Your task to perform on an android device: What's the weather going to be this weekend? Image 0: 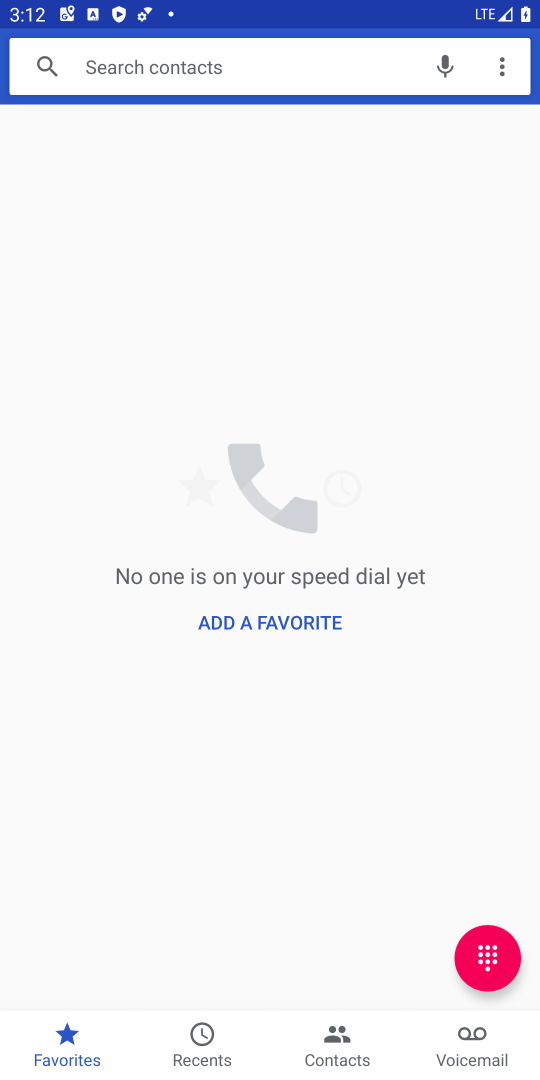
Step 0: press home button
Your task to perform on an android device: What's the weather going to be this weekend? Image 1: 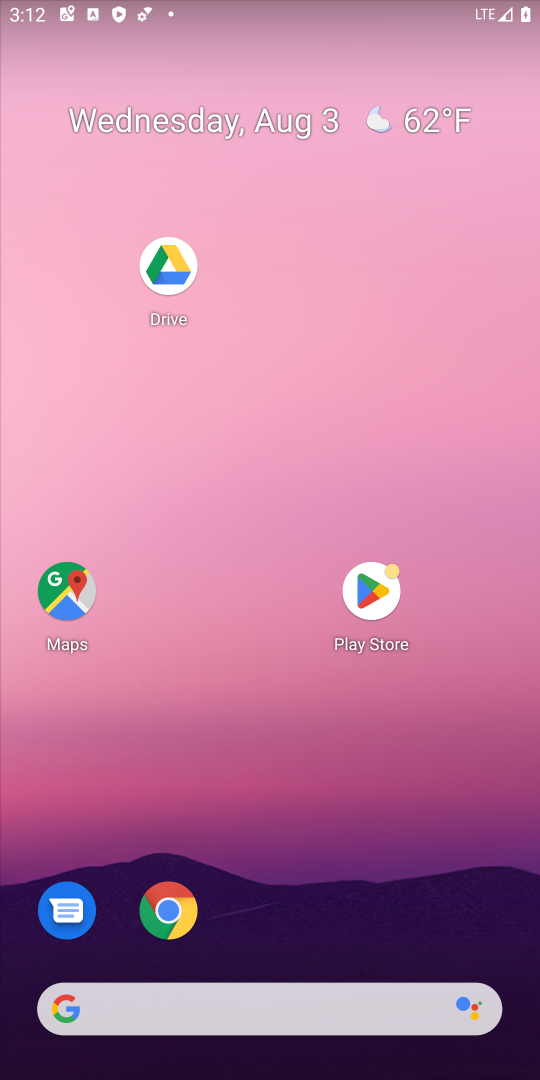
Step 1: drag from (426, 758) to (460, 11)
Your task to perform on an android device: What's the weather going to be this weekend? Image 2: 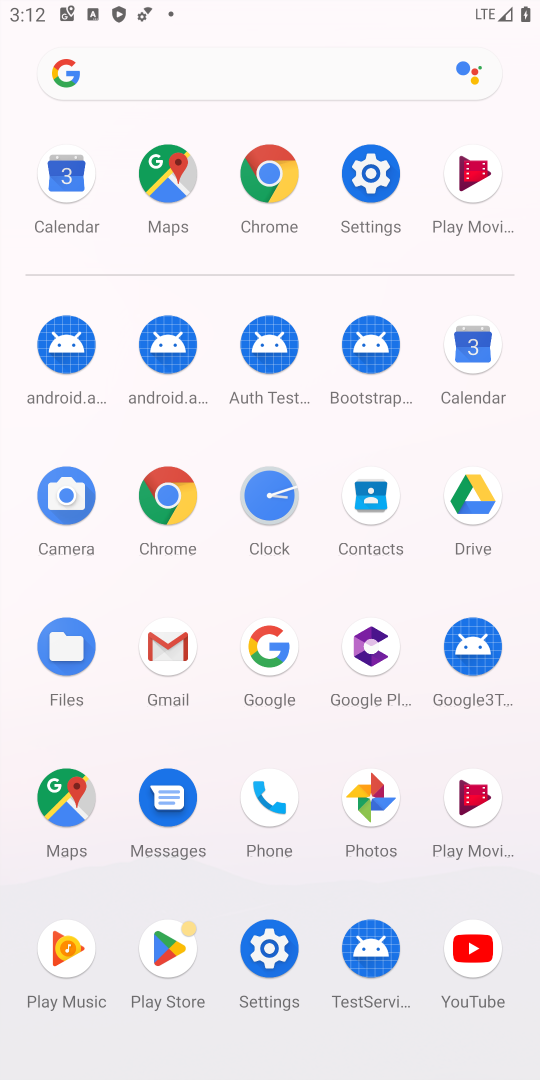
Step 2: click (169, 503)
Your task to perform on an android device: What's the weather going to be this weekend? Image 3: 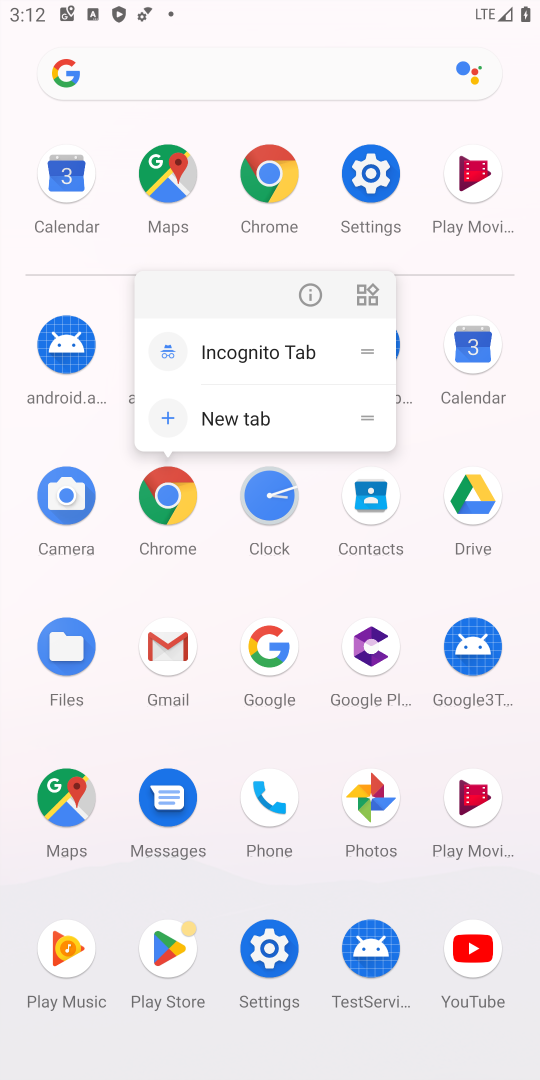
Step 3: click (280, 193)
Your task to perform on an android device: What's the weather going to be this weekend? Image 4: 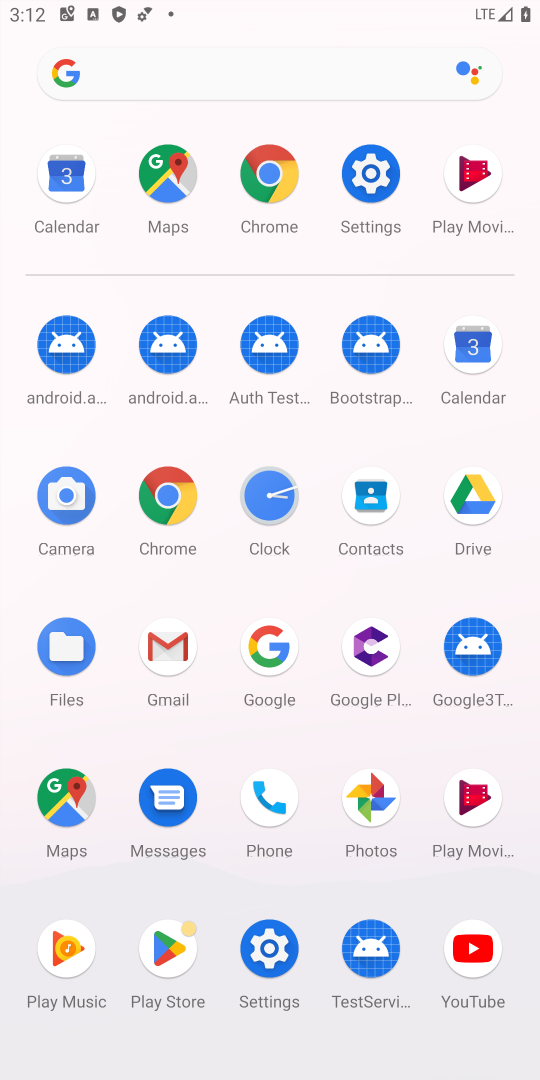
Step 4: click (280, 193)
Your task to perform on an android device: What's the weather going to be this weekend? Image 5: 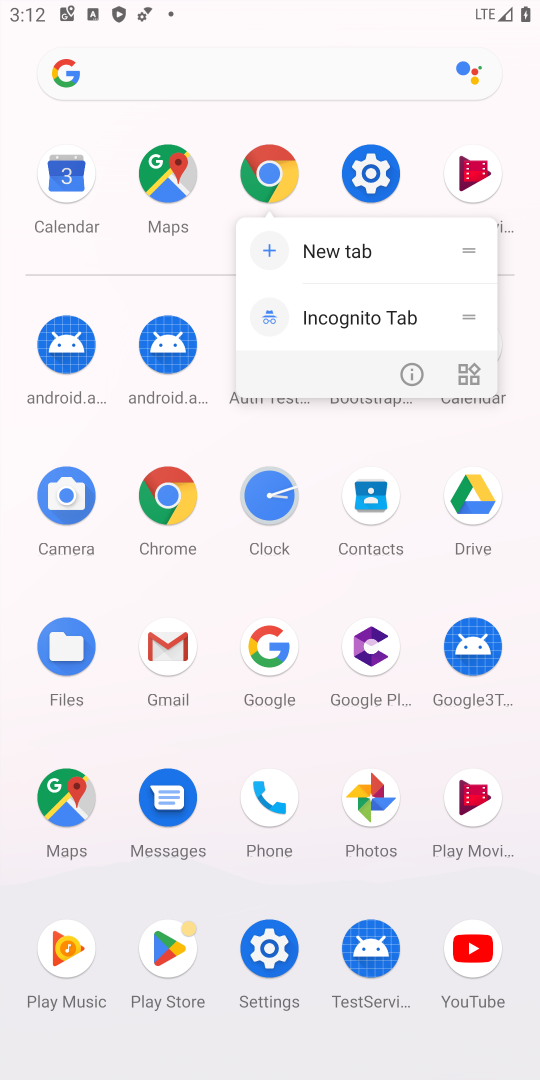
Step 5: click (278, 174)
Your task to perform on an android device: What's the weather going to be this weekend? Image 6: 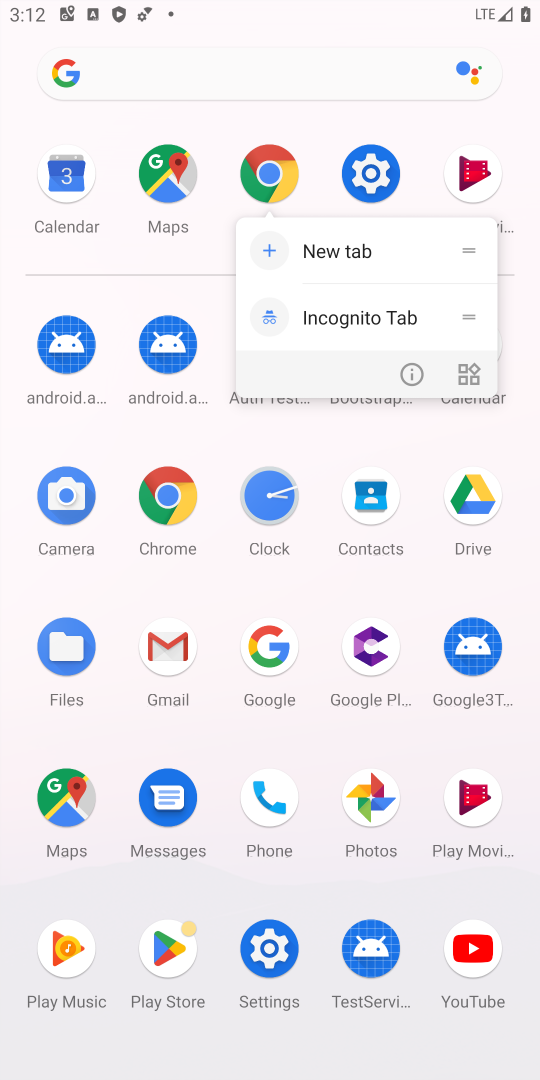
Step 6: click (340, 190)
Your task to perform on an android device: What's the weather going to be this weekend? Image 7: 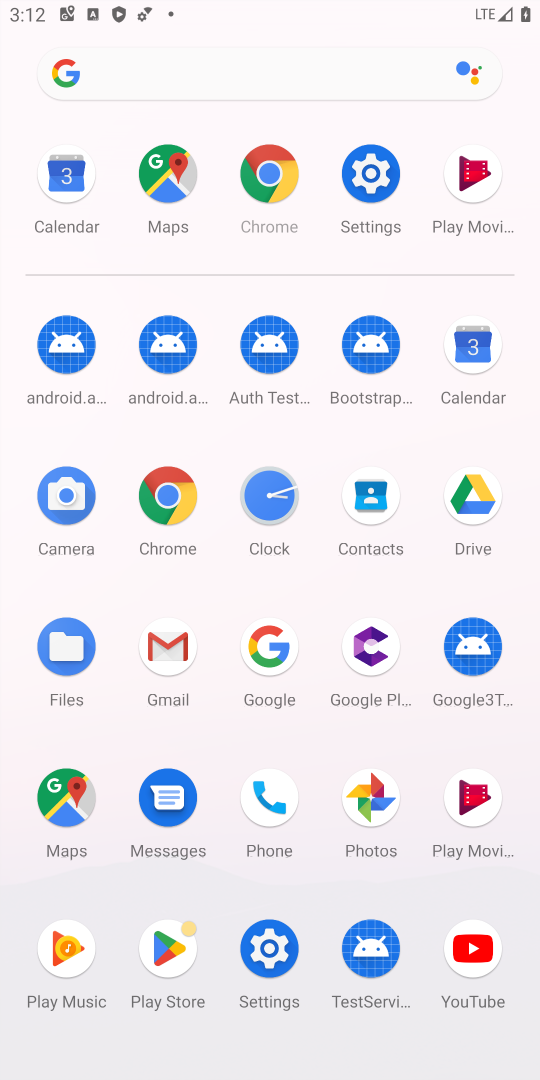
Step 7: click (352, 177)
Your task to perform on an android device: What's the weather going to be this weekend? Image 8: 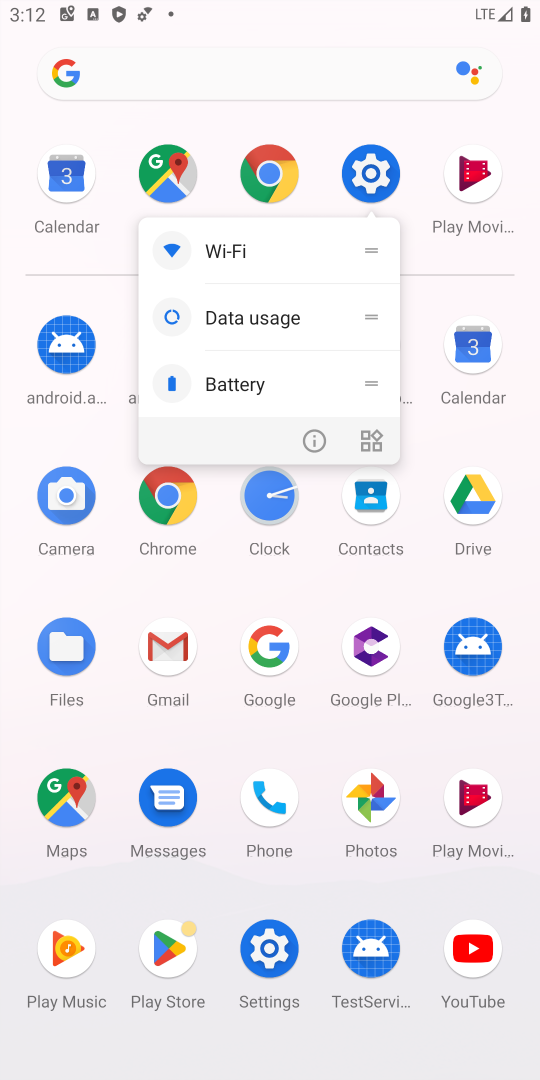
Step 8: click (295, 182)
Your task to perform on an android device: What's the weather going to be this weekend? Image 9: 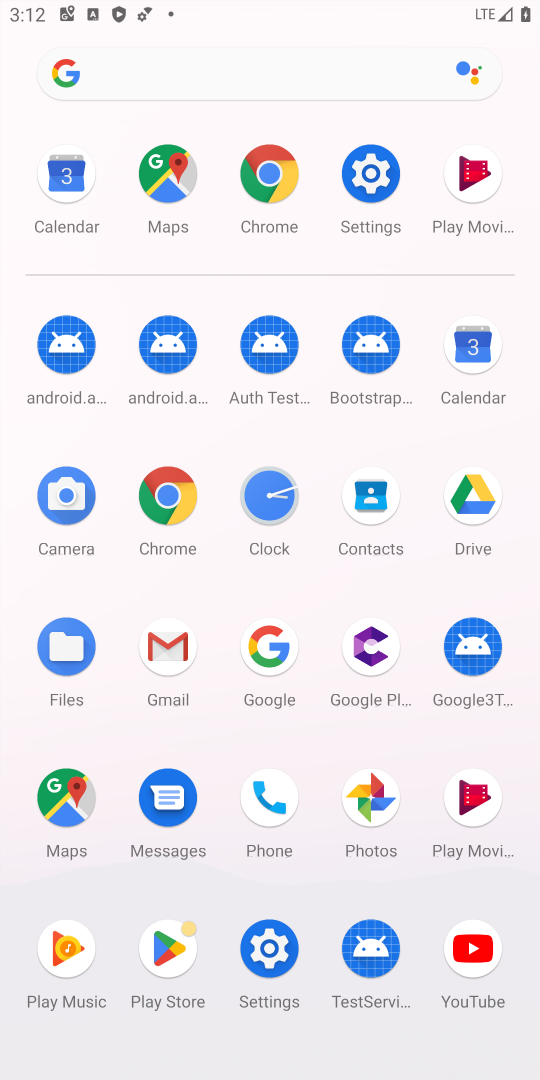
Step 9: click (295, 182)
Your task to perform on an android device: What's the weather going to be this weekend? Image 10: 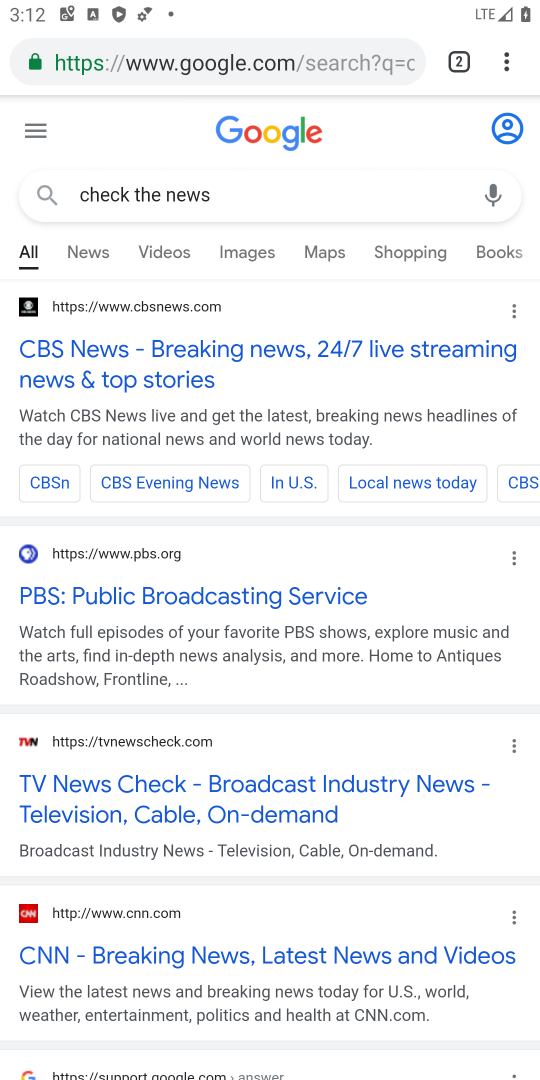
Step 10: click (341, 57)
Your task to perform on an android device: What's the weather going to be this weekend? Image 11: 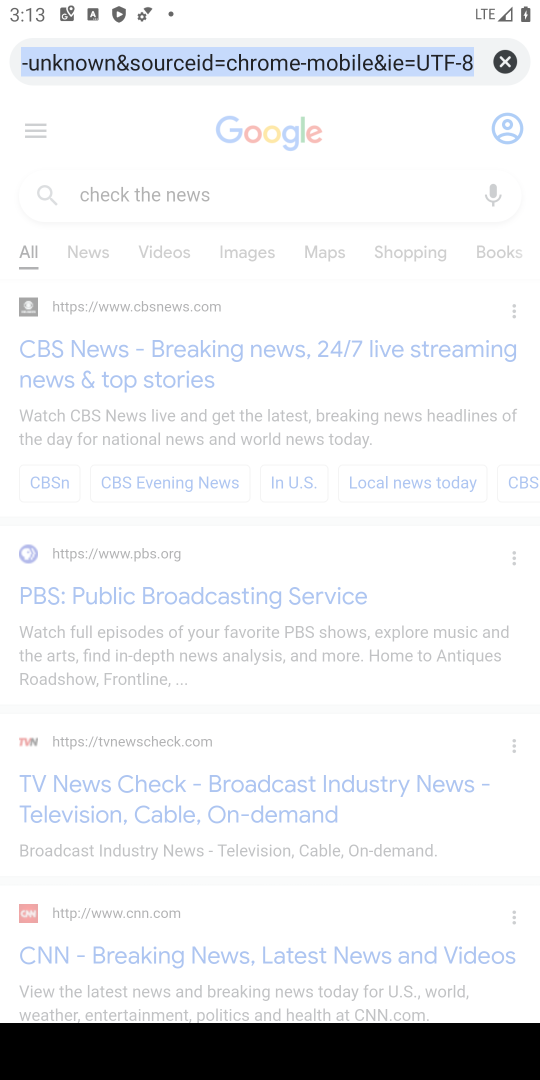
Step 11: type "weather going to be this weekend"
Your task to perform on an android device: What's the weather going to be this weekend? Image 12: 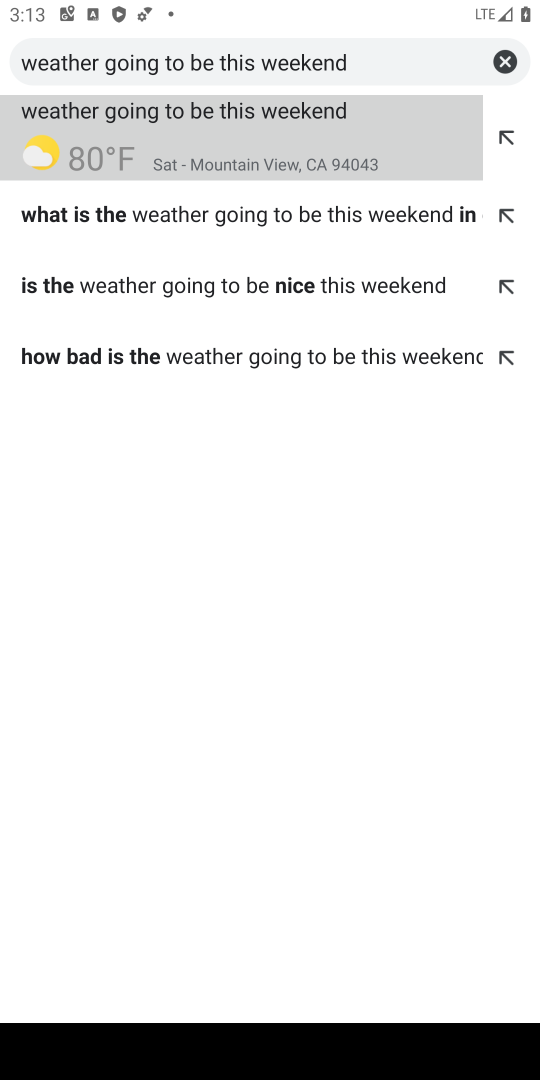
Step 12: click (425, 151)
Your task to perform on an android device: What's the weather going to be this weekend? Image 13: 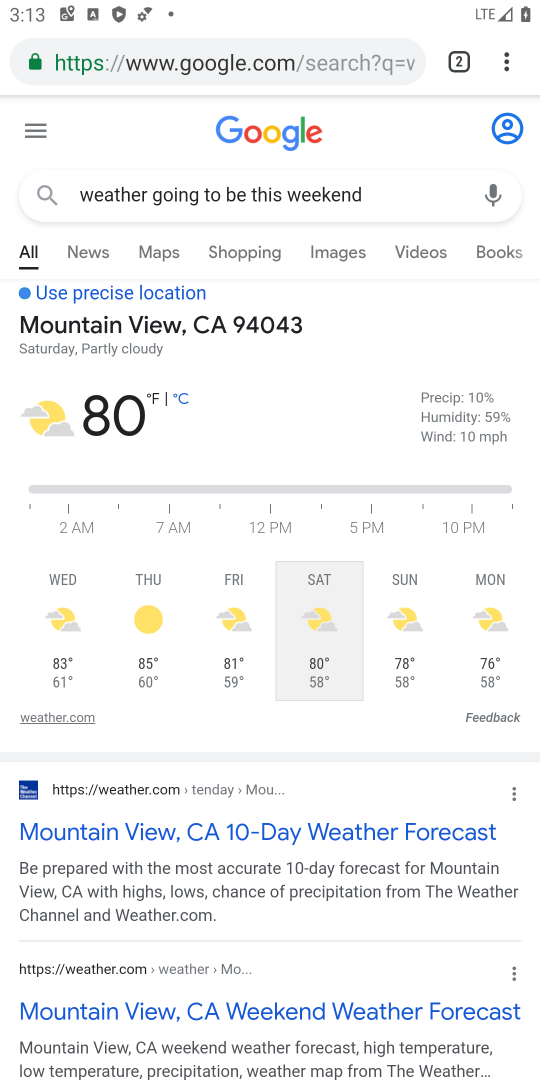
Step 13: task complete